Your task to perform on an android device: Do I have any events today? Image 0: 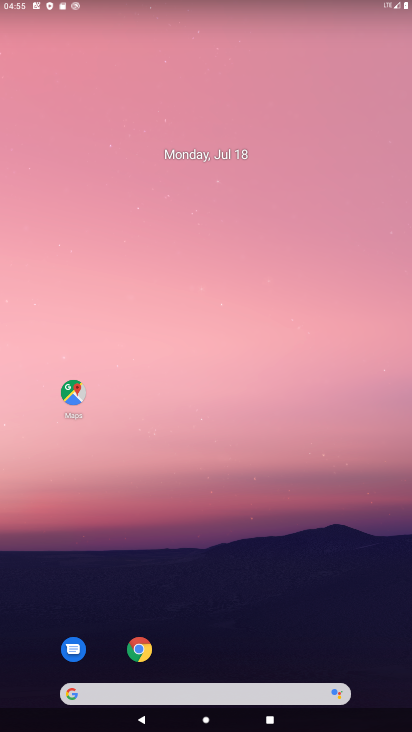
Step 0: click (206, 157)
Your task to perform on an android device: Do I have any events today? Image 1: 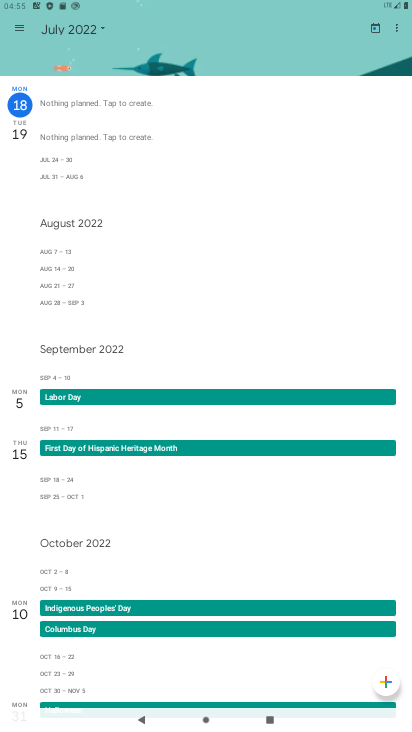
Step 1: task complete